Your task to perform on an android device: Open Yahoo.com Image 0: 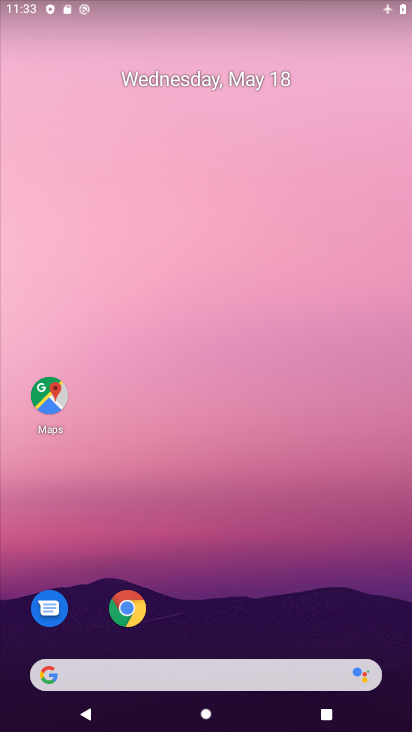
Step 0: drag from (290, 589) to (286, 173)
Your task to perform on an android device: Open Yahoo.com Image 1: 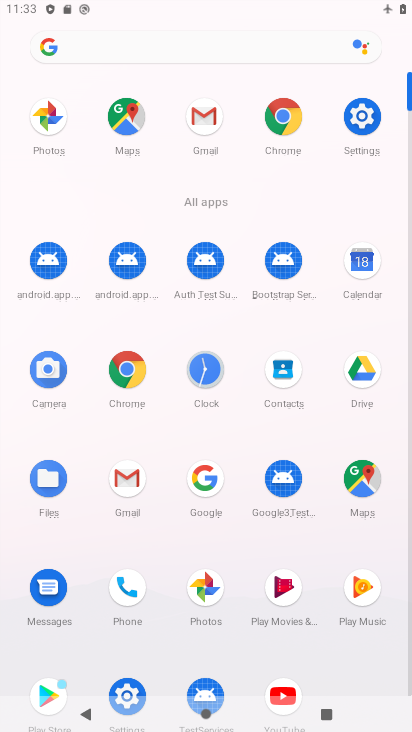
Step 1: click (134, 363)
Your task to perform on an android device: Open Yahoo.com Image 2: 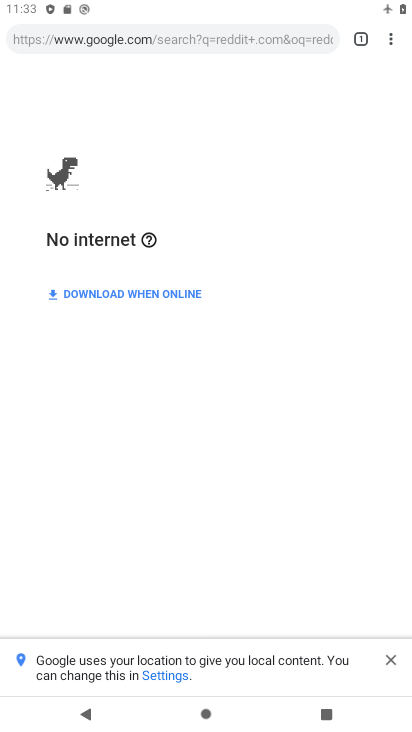
Step 2: click (255, 38)
Your task to perform on an android device: Open Yahoo.com Image 3: 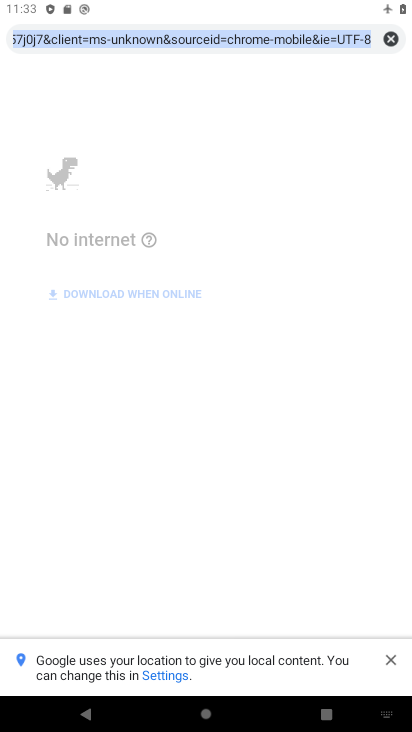
Step 3: click (389, 39)
Your task to perform on an android device: Open Yahoo.com Image 4: 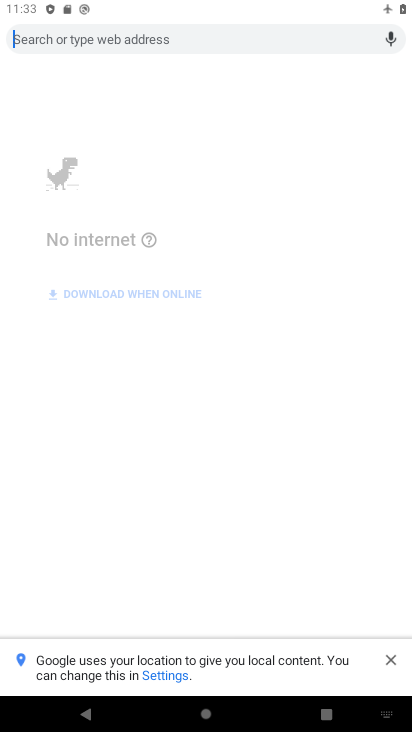
Step 4: type "yahoo.com"
Your task to perform on an android device: Open Yahoo.com Image 5: 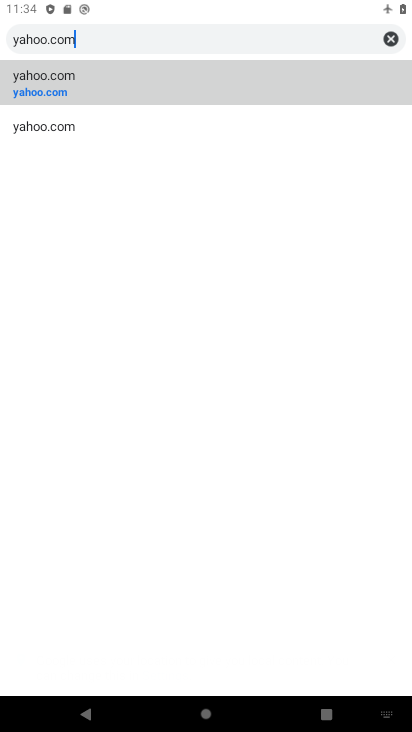
Step 5: click (209, 78)
Your task to perform on an android device: Open Yahoo.com Image 6: 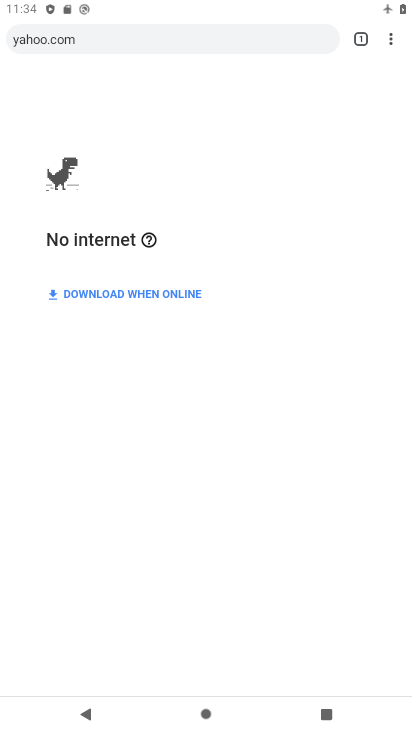
Step 6: task complete